Your task to perform on an android device: turn off javascript in the chrome app Image 0: 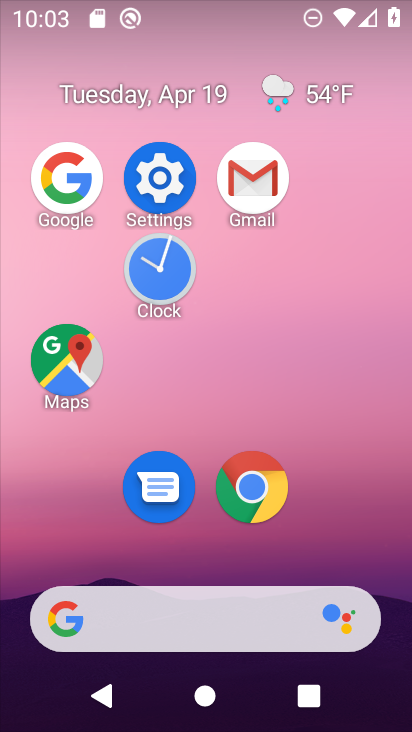
Step 0: click (251, 480)
Your task to perform on an android device: turn off javascript in the chrome app Image 1: 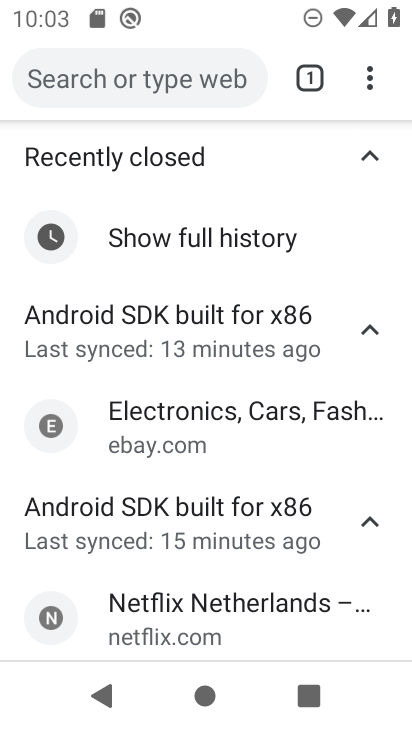
Step 1: click (373, 84)
Your task to perform on an android device: turn off javascript in the chrome app Image 2: 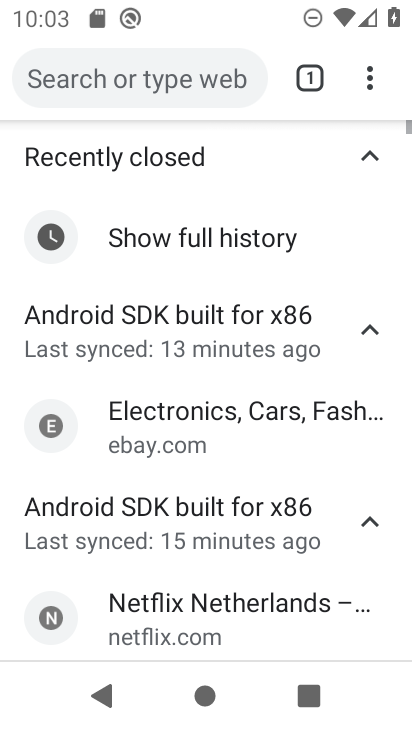
Step 2: click (373, 84)
Your task to perform on an android device: turn off javascript in the chrome app Image 3: 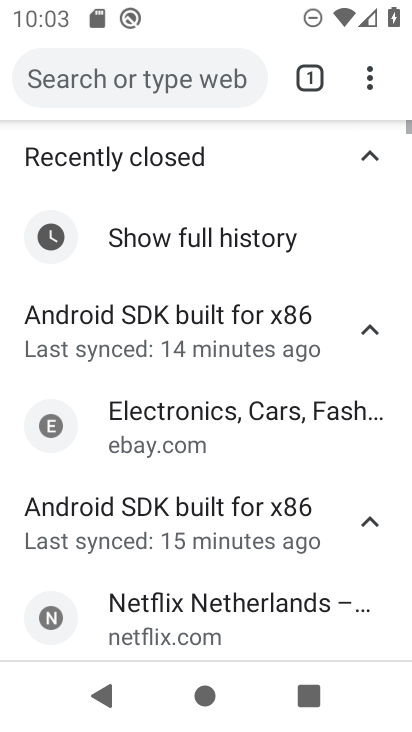
Step 3: click (373, 84)
Your task to perform on an android device: turn off javascript in the chrome app Image 4: 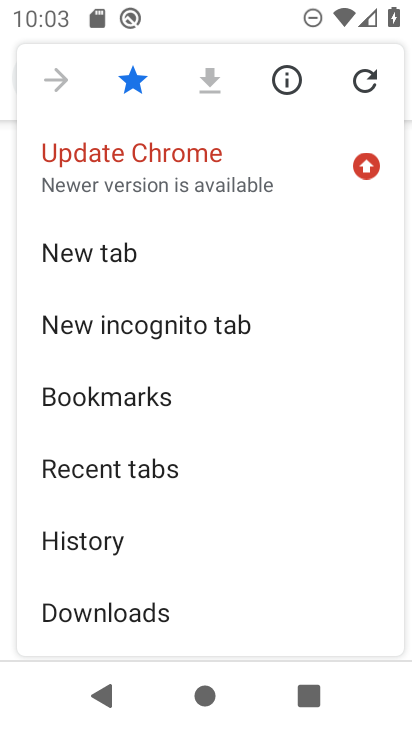
Step 4: drag from (216, 486) to (196, 120)
Your task to perform on an android device: turn off javascript in the chrome app Image 5: 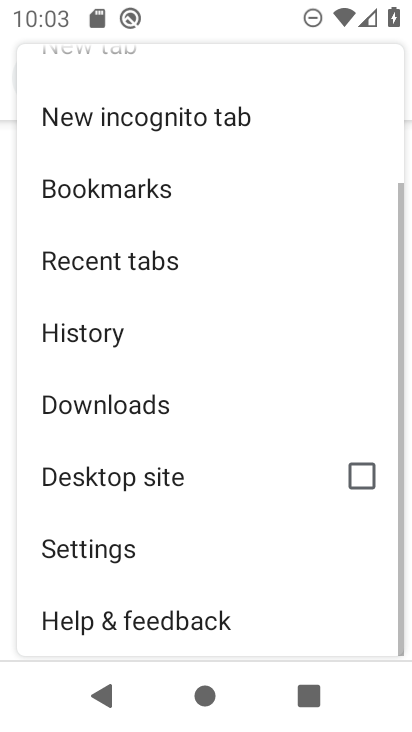
Step 5: click (167, 537)
Your task to perform on an android device: turn off javascript in the chrome app Image 6: 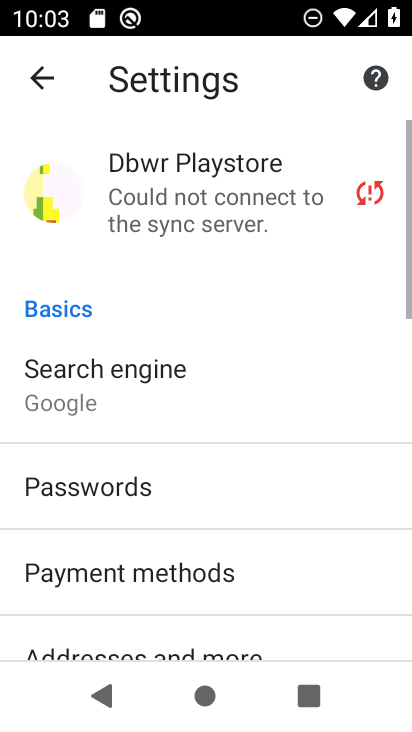
Step 6: drag from (167, 537) to (174, 182)
Your task to perform on an android device: turn off javascript in the chrome app Image 7: 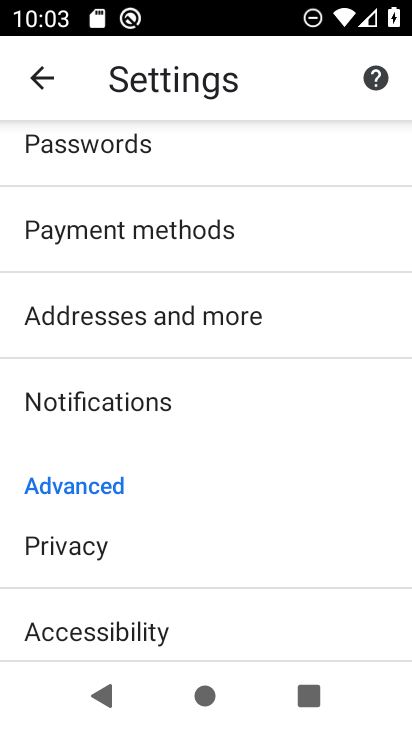
Step 7: drag from (159, 591) to (213, 170)
Your task to perform on an android device: turn off javascript in the chrome app Image 8: 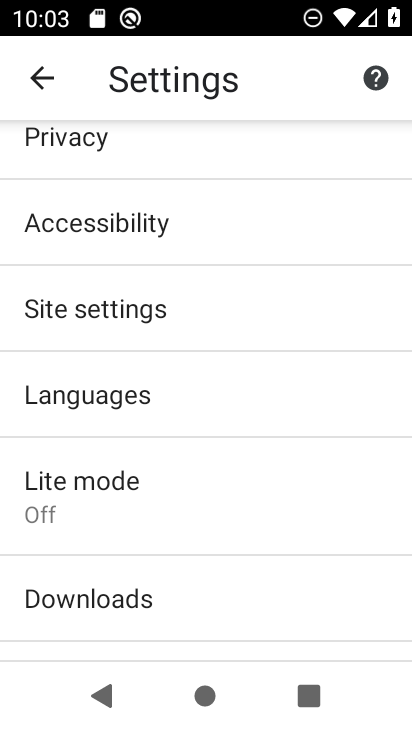
Step 8: click (226, 322)
Your task to perform on an android device: turn off javascript in the chrome app Image 9: 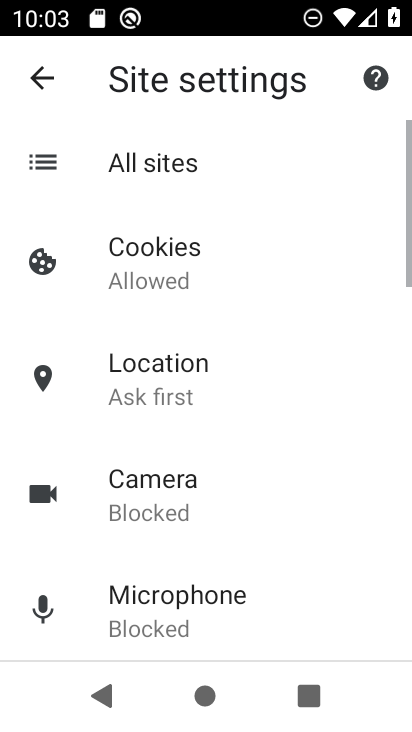
Step 9: drag from (209, 586) to (244, 187)
Your task to perform on an android device: turn off javascript in the chrome app Image 10: 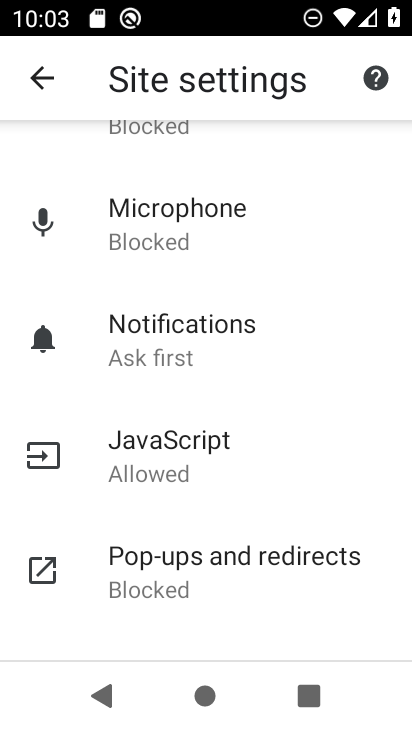
Step 10: click (223, 462)
Your task to perform on an android device: turn off javascript in the chrome app Image 11: 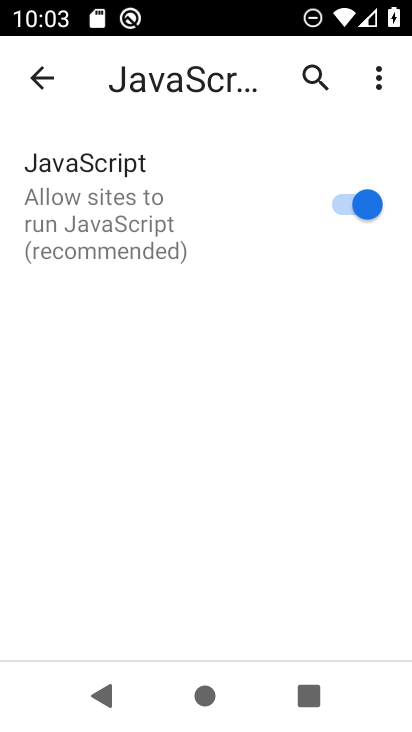
Step 11: click (348, 207)
Your task to perform on an android device: turn off javascript in the chrome app Image 12: 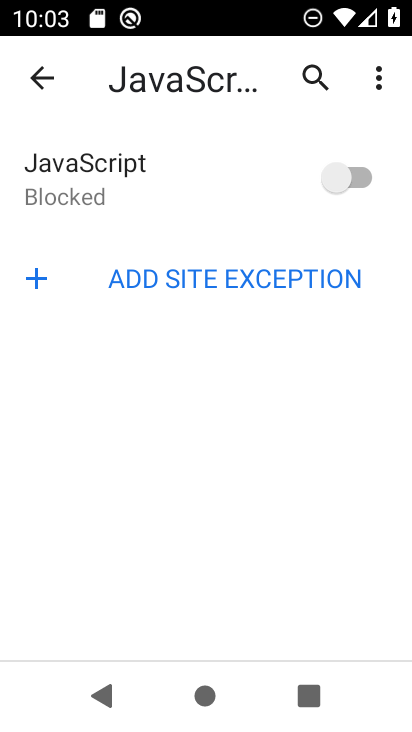
Step 12: task complete